Your task to perform on an android device: Go to Amazon Image 0: 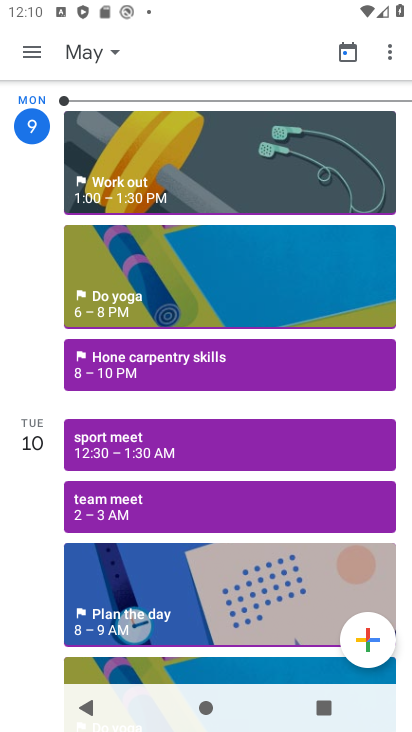
Step 0: press home button
Your task to perform on an android device: Go to Amazon Image 1: 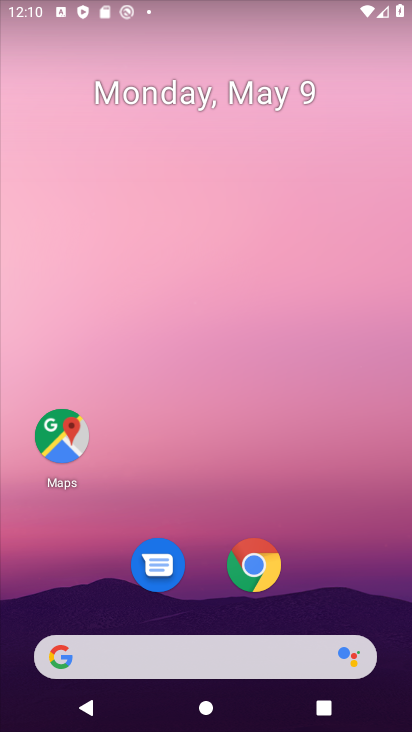
Step 1: click (269, 576)
Your task to perform on an android device: Go to Amazon Image 2: 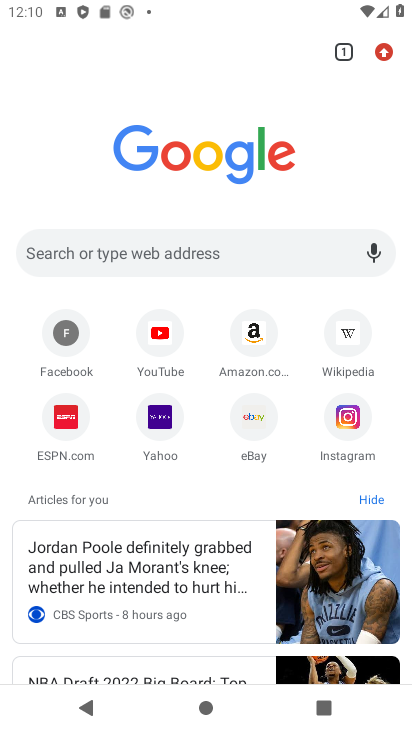
Step 2: click (257, 347)
Your task to perform on an android device: Go to Amazon Image 3: 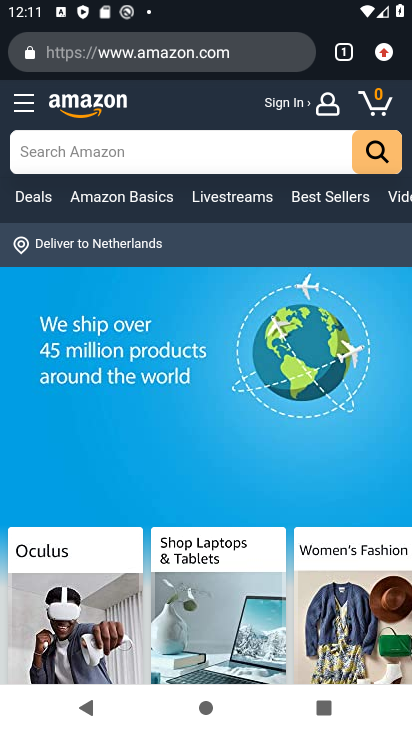
Step 3: task complete